Your task to perform on an android device: Open privacy settings Image 0: 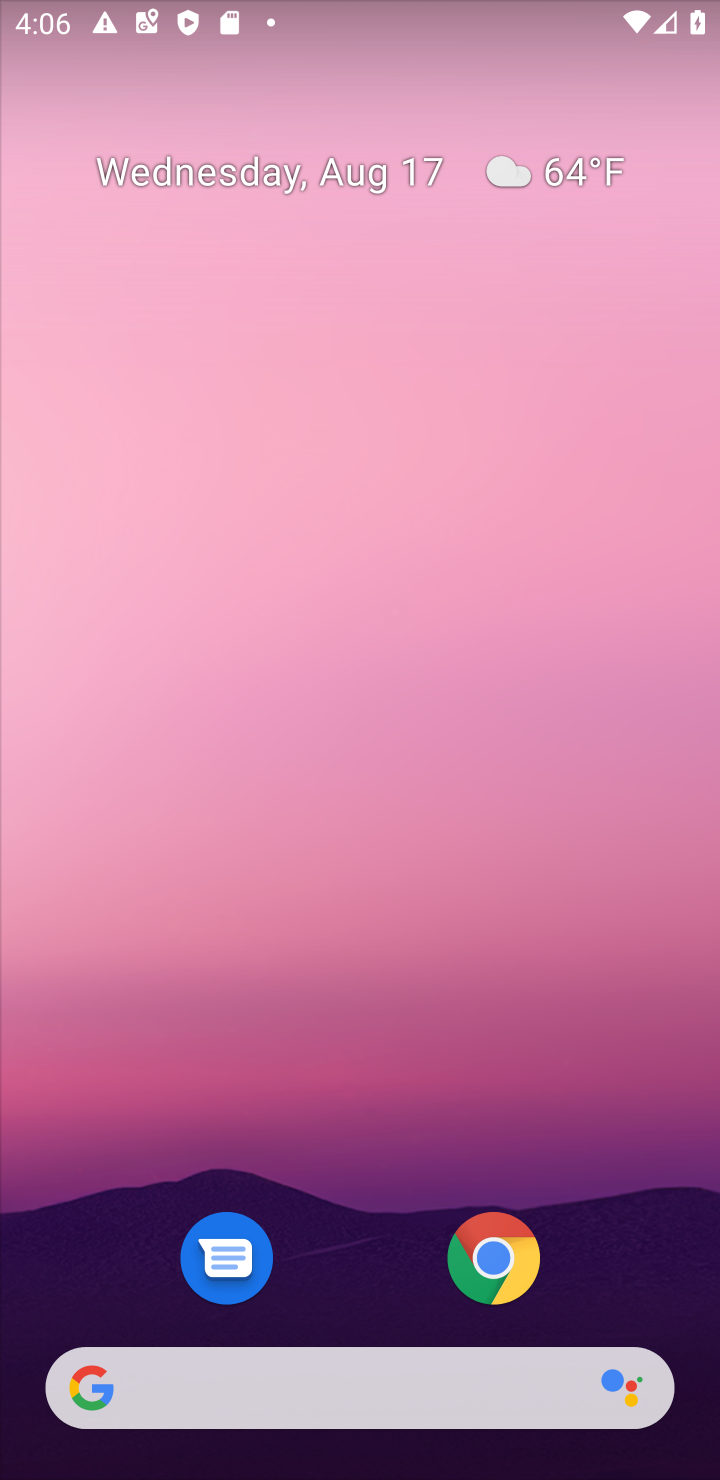
Step 0: drag from (581, 1160) to (520, 454)
Your task to perform on an android device: Open privacy settings Image 1: 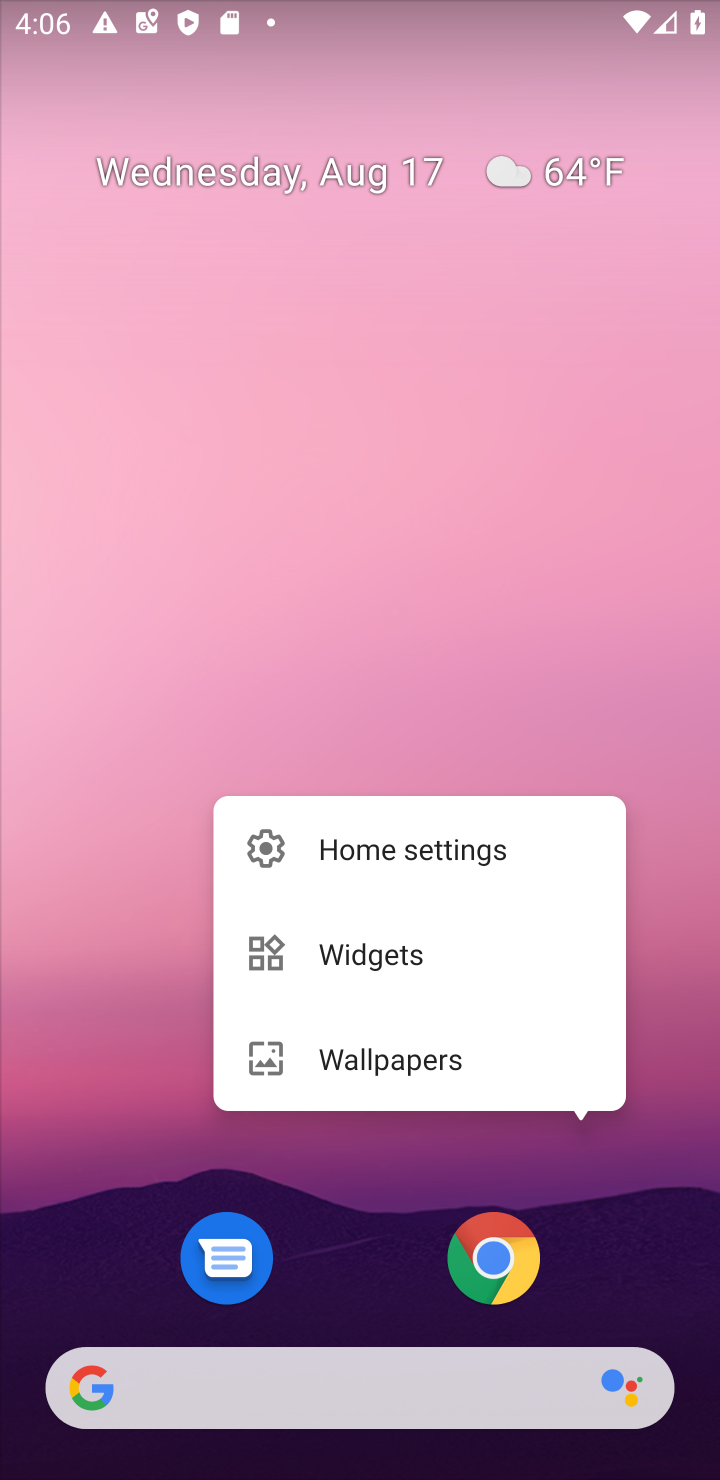
Step 1: click (587, 617)
Your task to perform on an android device: Open privacy settings Image 2: 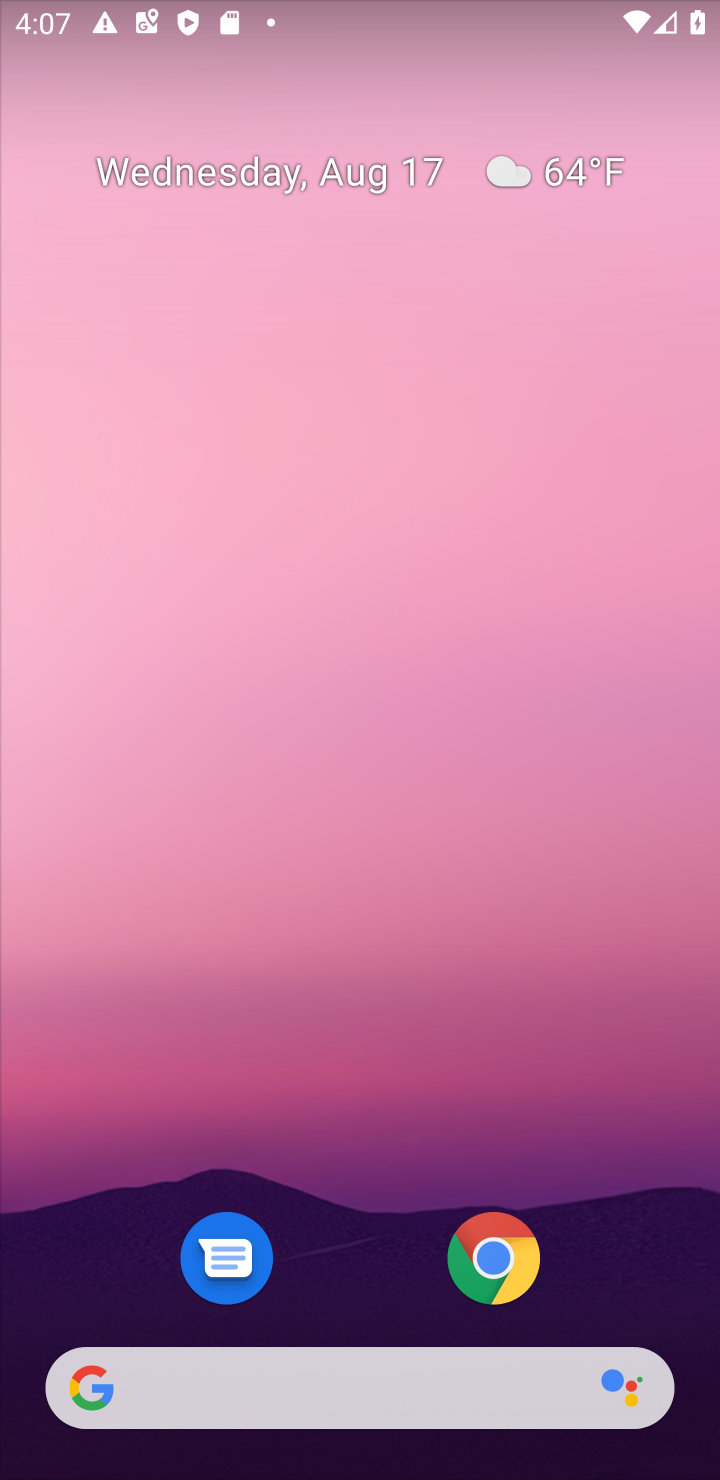
Step 2: drag from (365, 1212) to (433, 383)
Your task to perform on an android device: Open privacy settings Image 3: 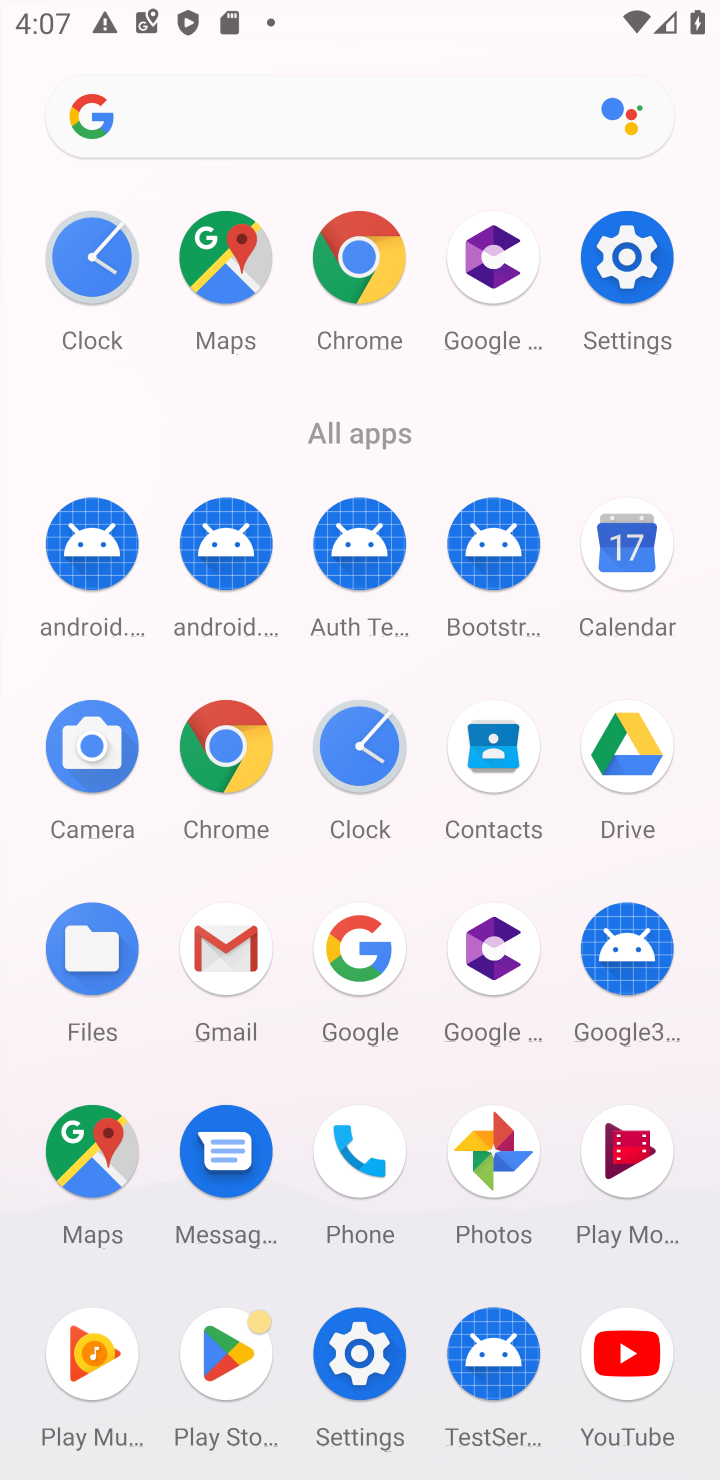
Step 3: click (356, 1340)
Your task to perform on an android device: Open privacy settings Image 4: 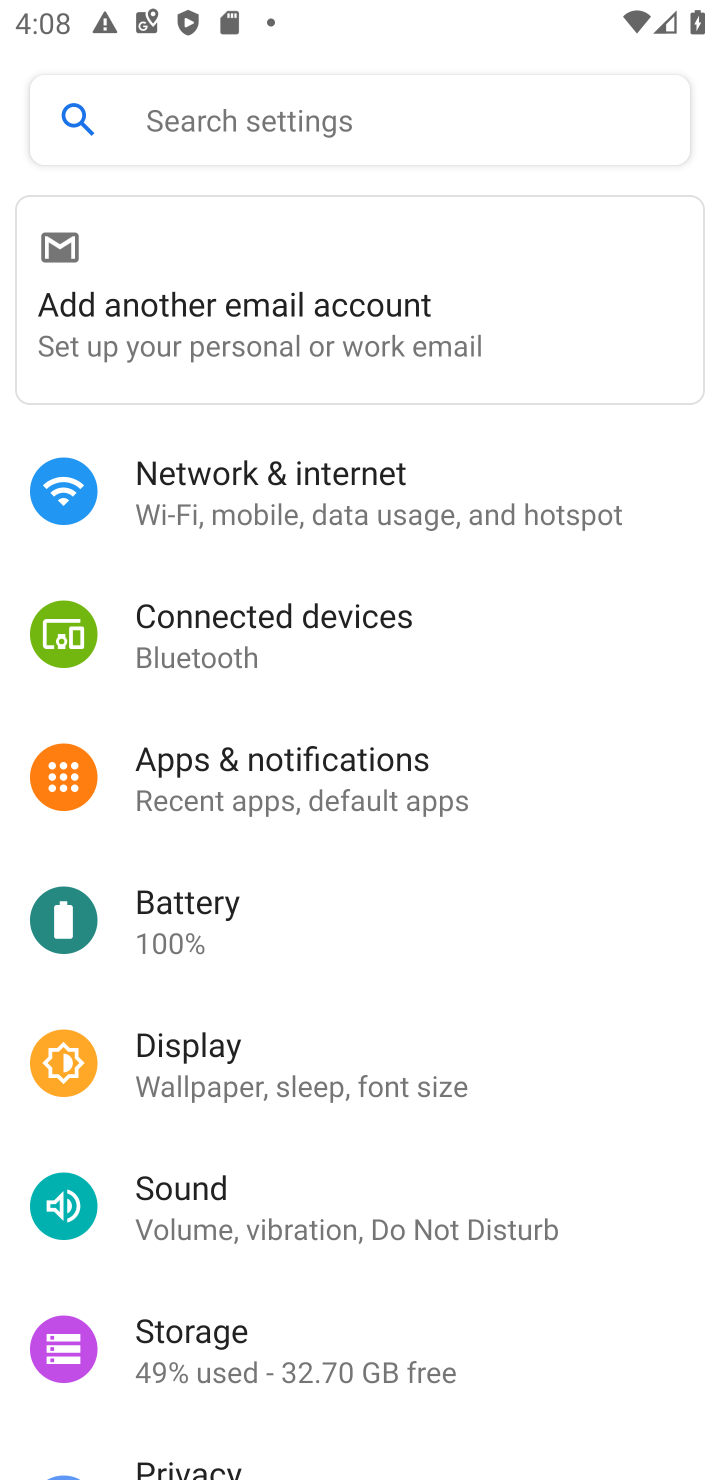
Step 4: drag from (453, 1294) to (417, 864)
Your task to perform on an android device: Open privacy settings Image 5: 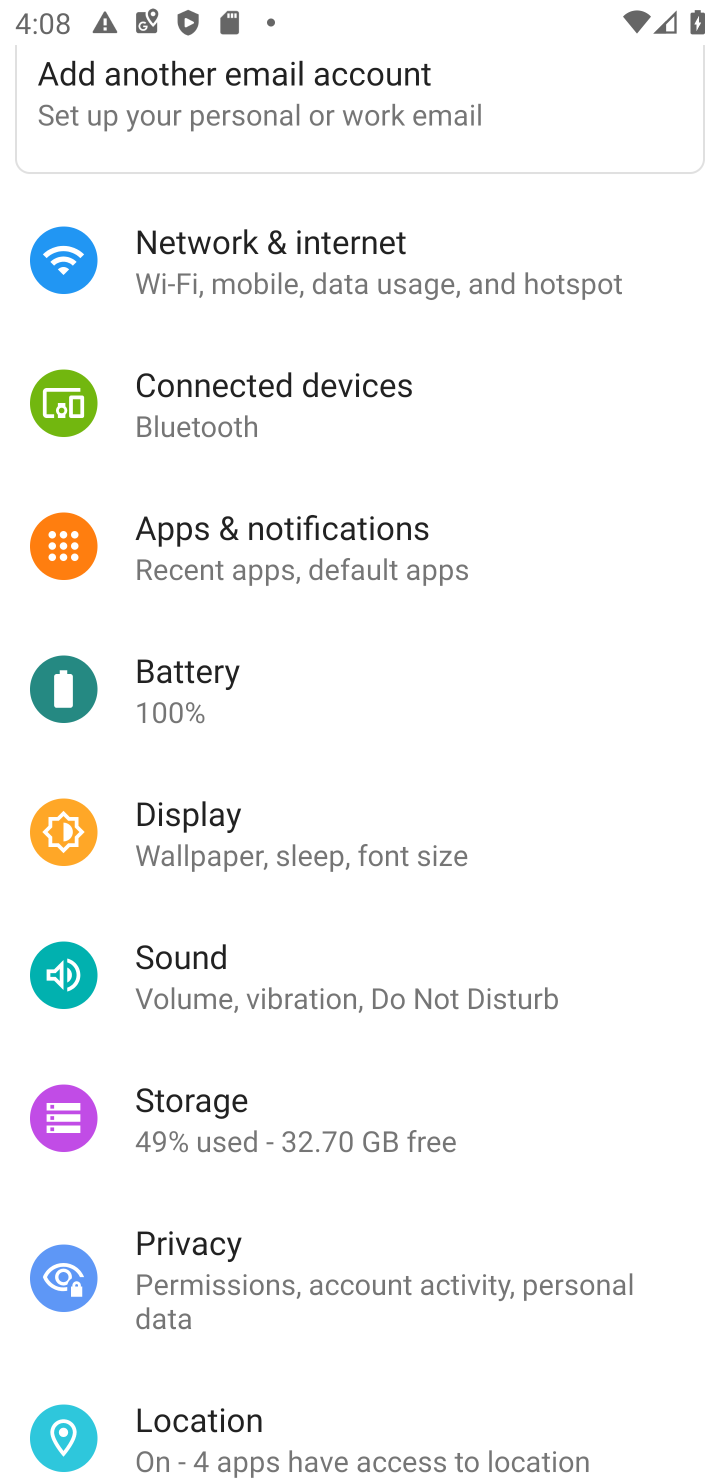
Step 5: click (230, 1256)
Your task to perform on an android device: Open privacy settings Image 6: 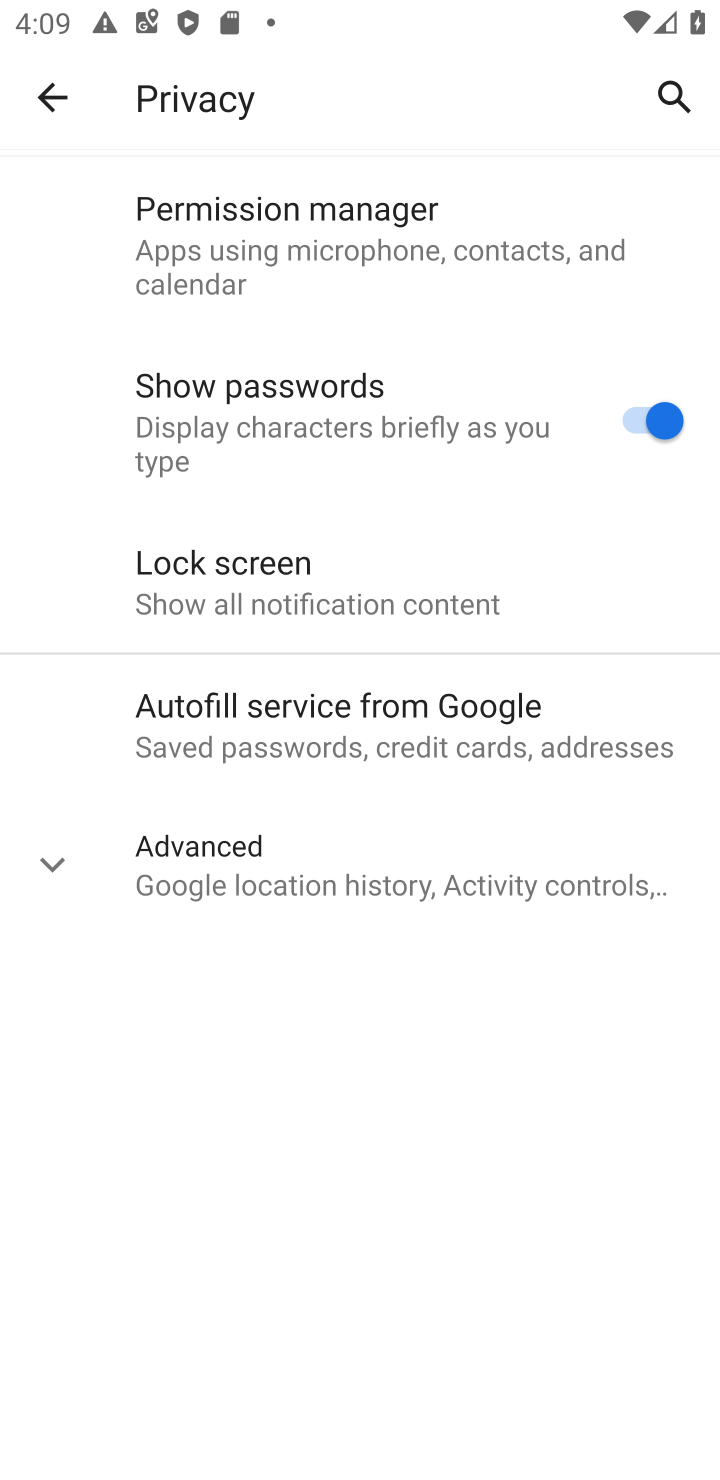
Step 6: task complete